Your task to perform on an android device: Is it going to rain this weekend? Image 0: 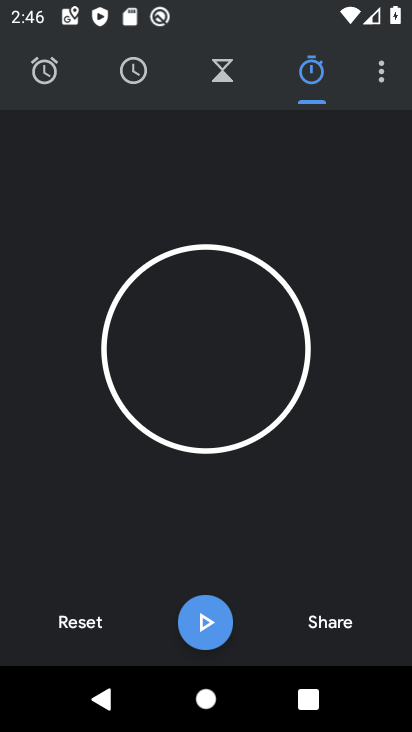
Step 0: press home button
Your task to perform on an android device: Is it going to rain this weekend? Image 1: 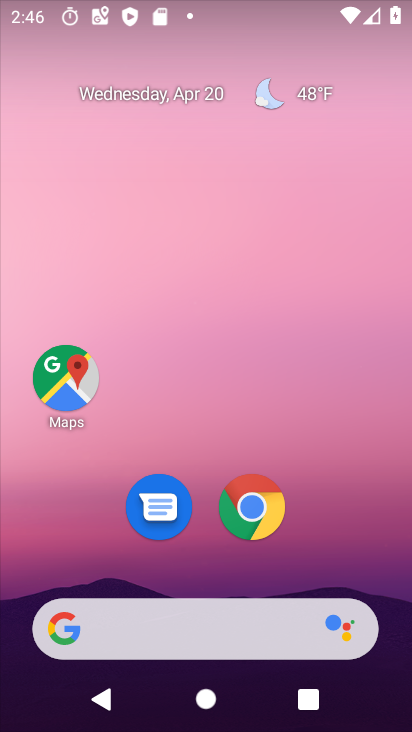
Step 1: drag from (246, 612) to (198, 98)
Your task to perform on an android device: Is it going to rain this weekend? Image 2: 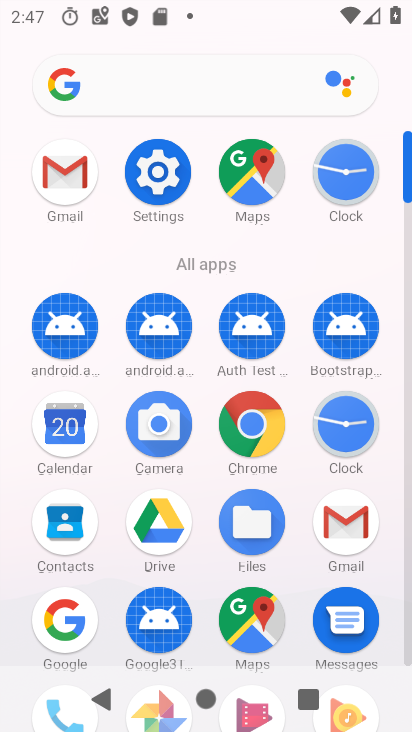
Step 2: click (81, 622)
Your task to perform on an android device: Is it going to rain this weekend? Image 3: 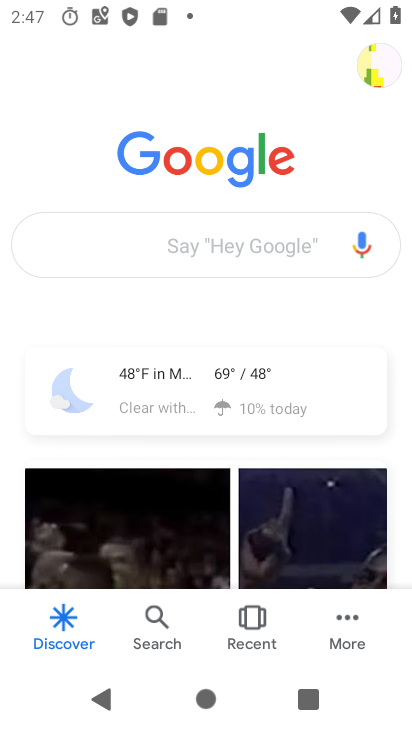
Step 3: click (137, 396)
Your task to perform on an android device: Is it going to rain this weekend? Image 4: 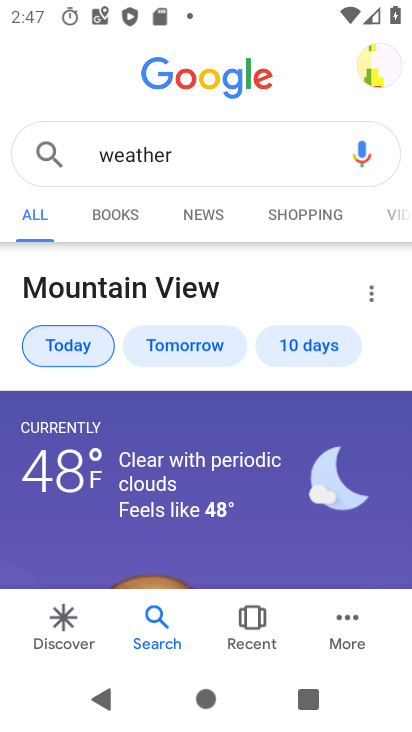
Step 4: click (329, 354)
Your task to perform on an android device: Is it going to rain this weekend? Image 5: 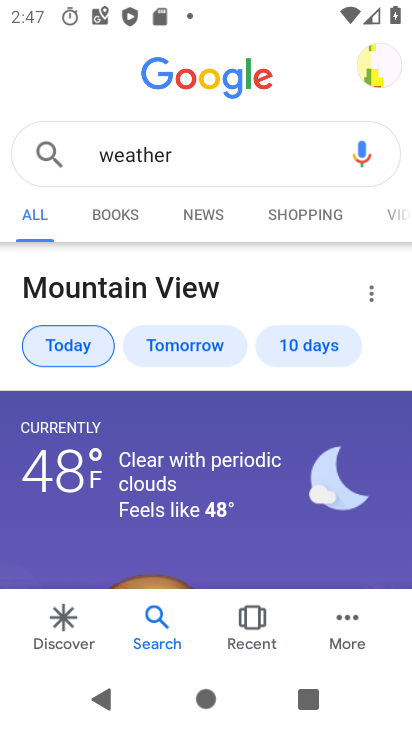
Step 5: click (296, 336)
Your task to perform on an android device: Is it going to rain this weekend? Image 6: 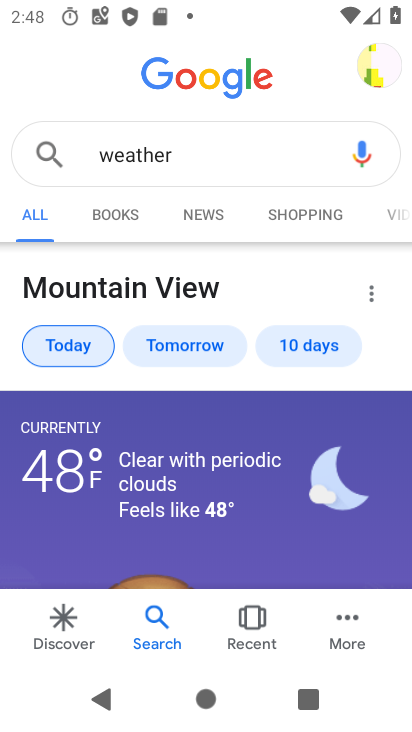
Step 6: drag from (190, 502) to (215, 95)
Your task to perform on an android device: Is it going to rain this weekend? Image 7: 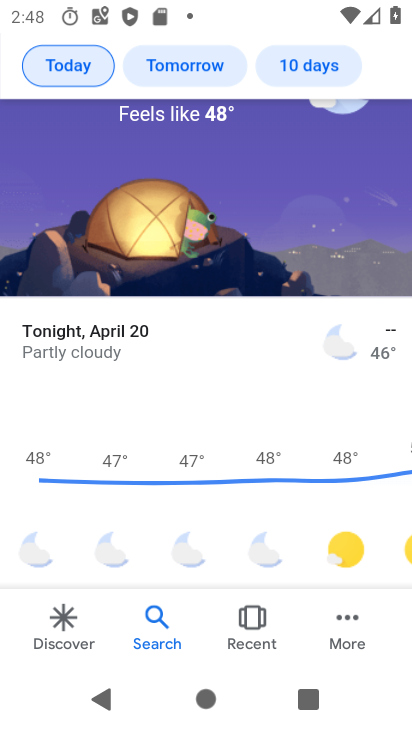
Step 7: click (294, 72)
Your task to perform on an android device: Is it going to rain this weekend? Image 8: 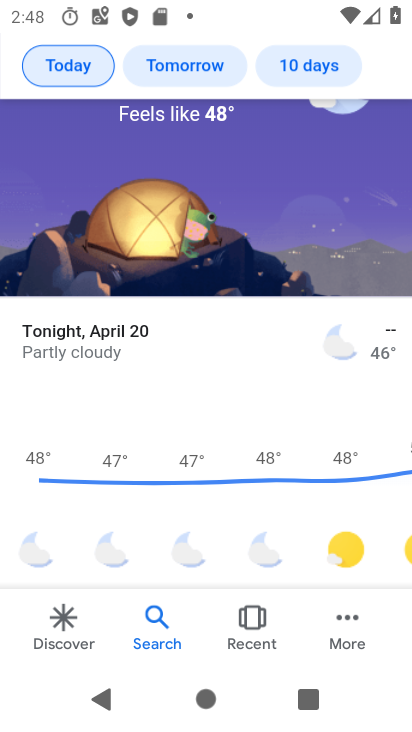
Step 8: drag from (217, 393) to (98, 46)
Your task to perform on an android device: Is it going to rain this weekend? Image 9: 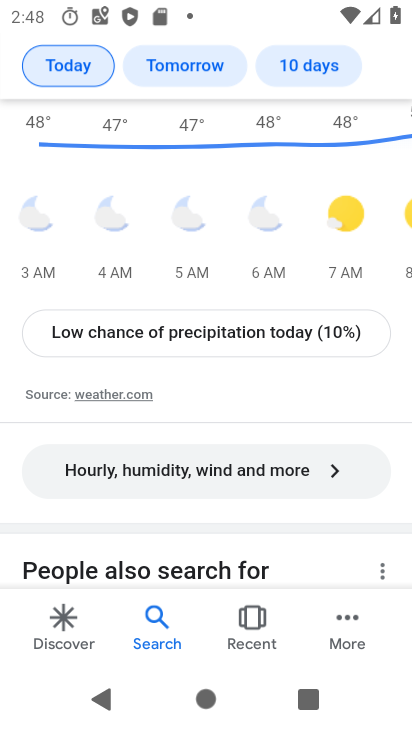
Step 9: drag from (290, 538) to (321, 39)
Your task to perform on an android device: Is it going to rain this weekend? Image 10: 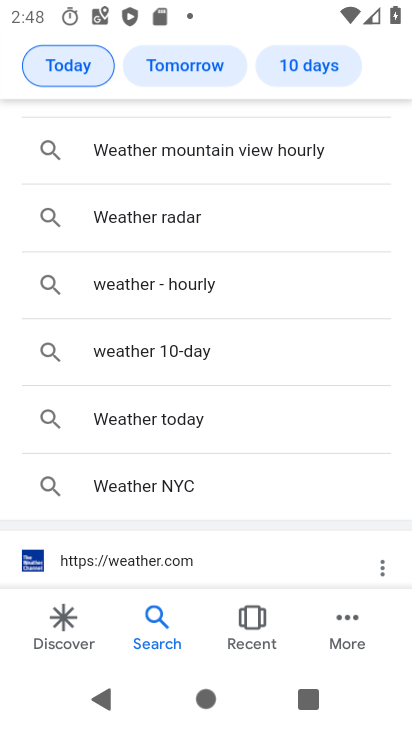
Step 10: click (190, 342)
Your task to perform on an android device: Is it going to rain this weekend? Image 11: 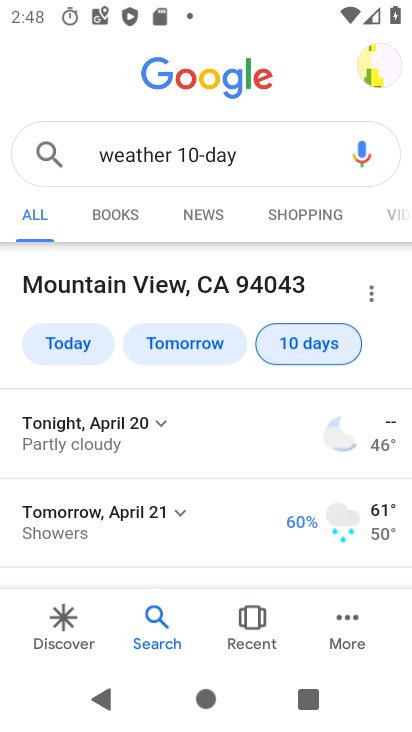
Step 11: task complete